Your task to perform on an android device: Open Reddit.com Image 0: 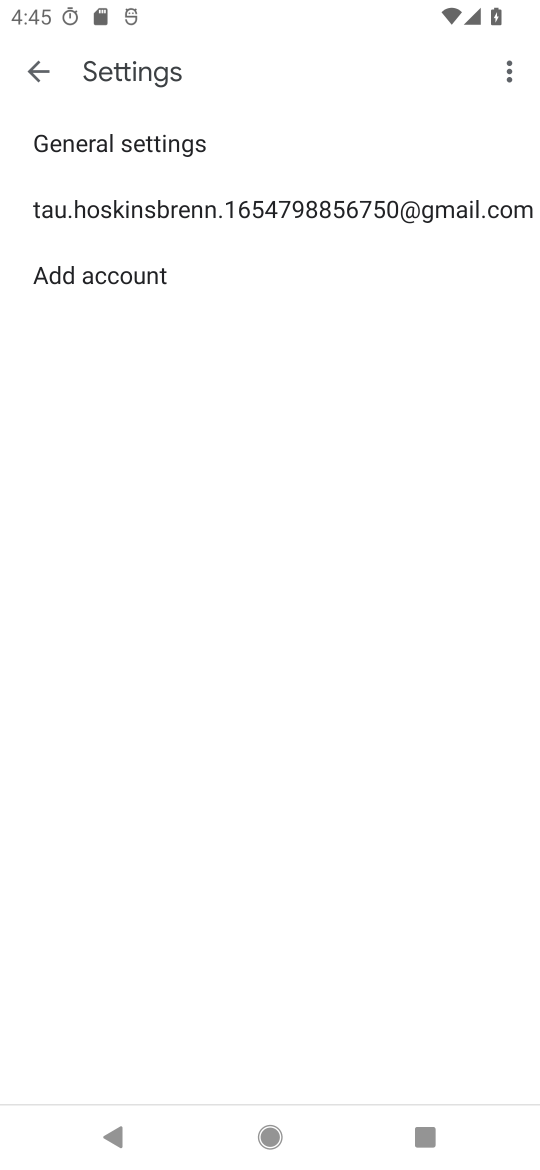
Step 0: press home button
Your task to perform on an android device: Open Reddit.com Image 1: 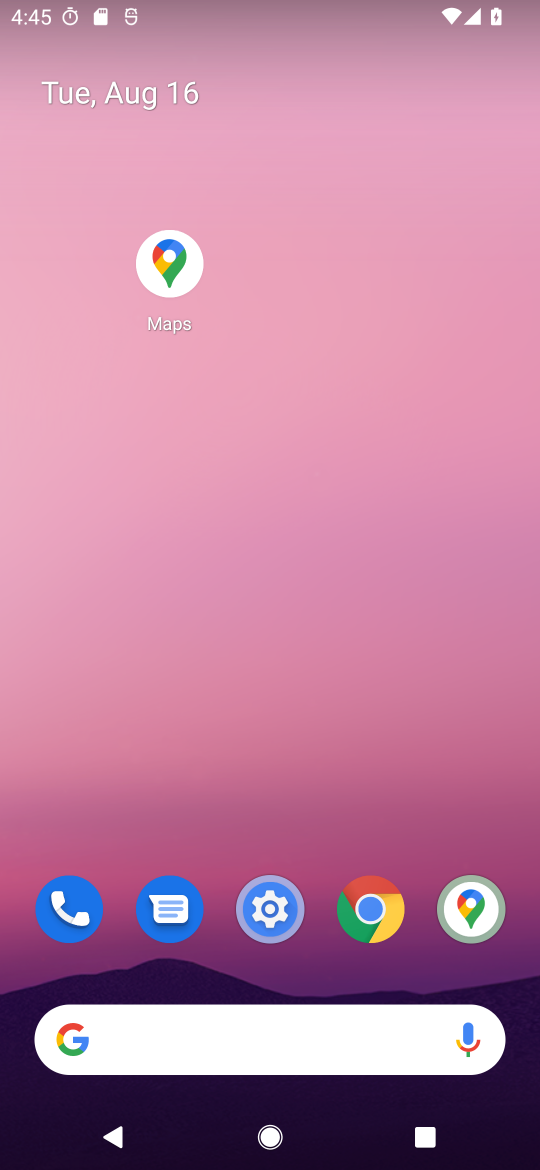
Step 1: click (376, 911)
Your task to perform on an android device: Open Reddit.com Image 2: 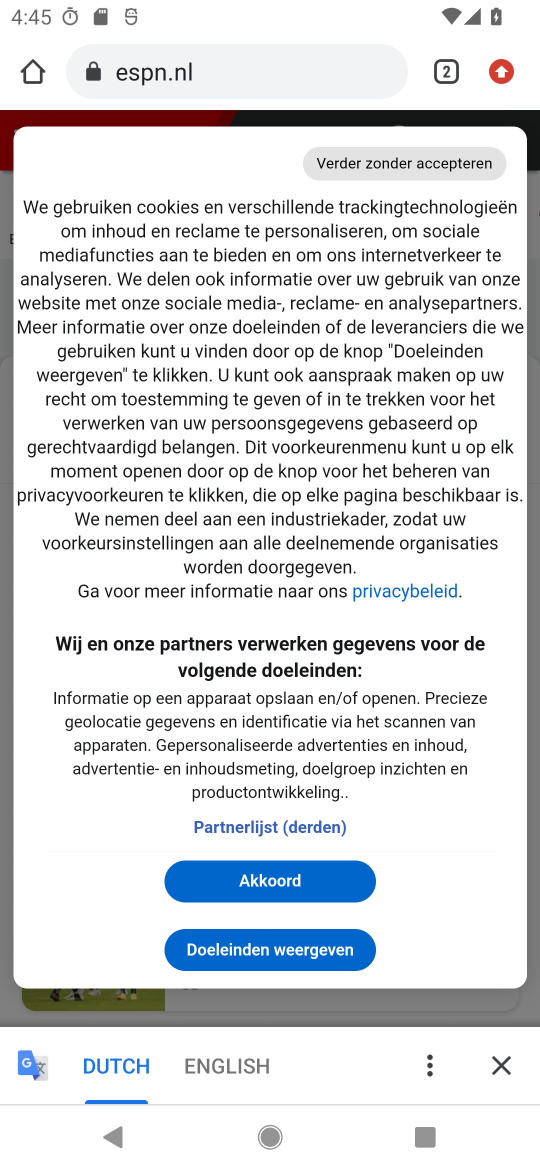
Step 2: click (134, 67)
Your task to perform on an android device: Open Reddit.com Image 3: 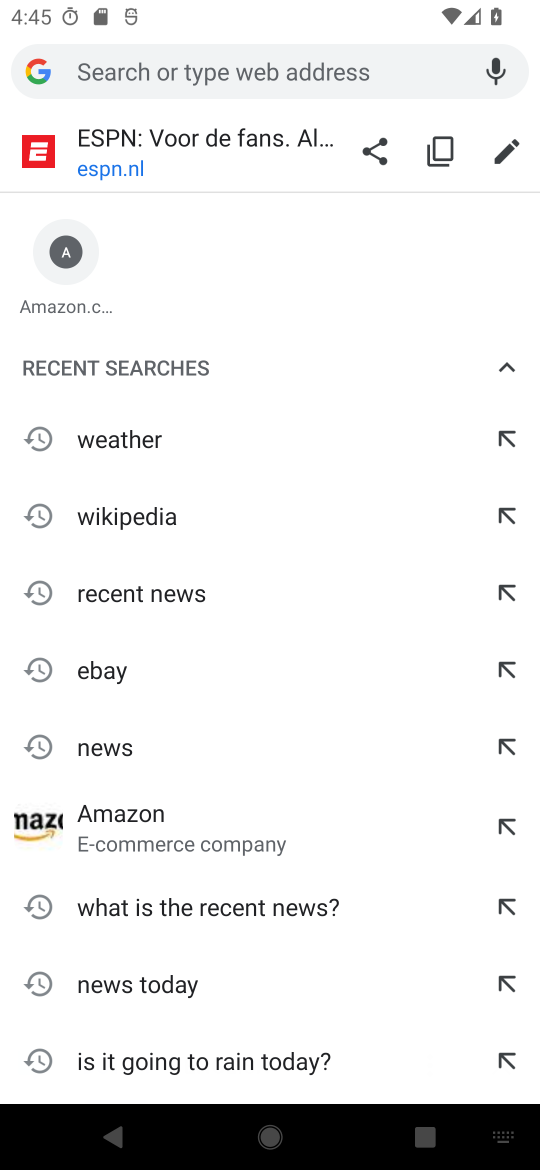
Step 3: type "www.reddit.com"
Your task to perform on an android device: Open Reddit.com Image 4: 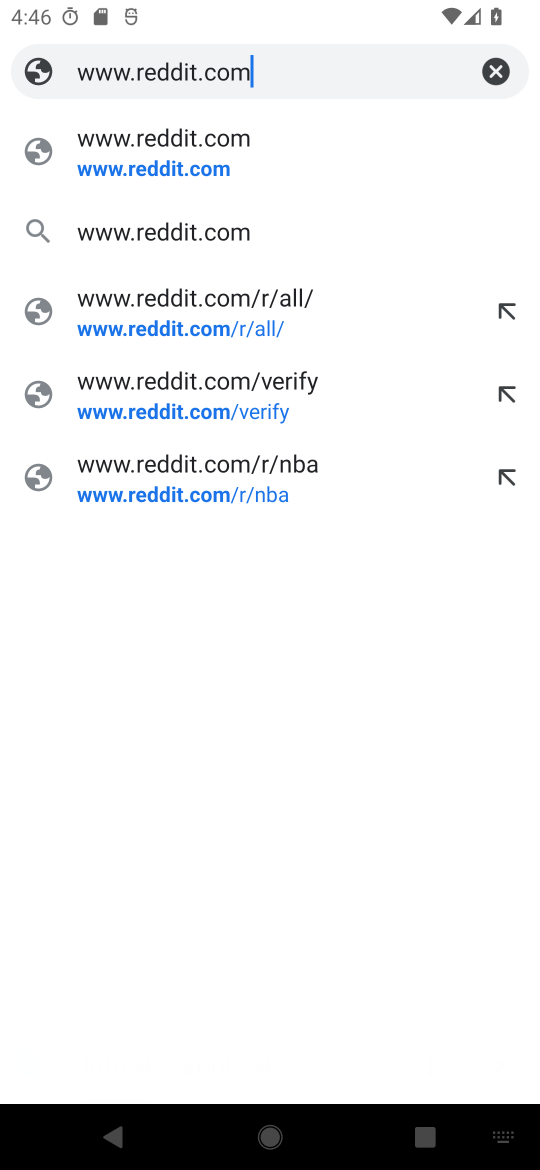
Step 4: click (178, 170)
Your task to perform on an android device: Open Reddit.com Image 5: 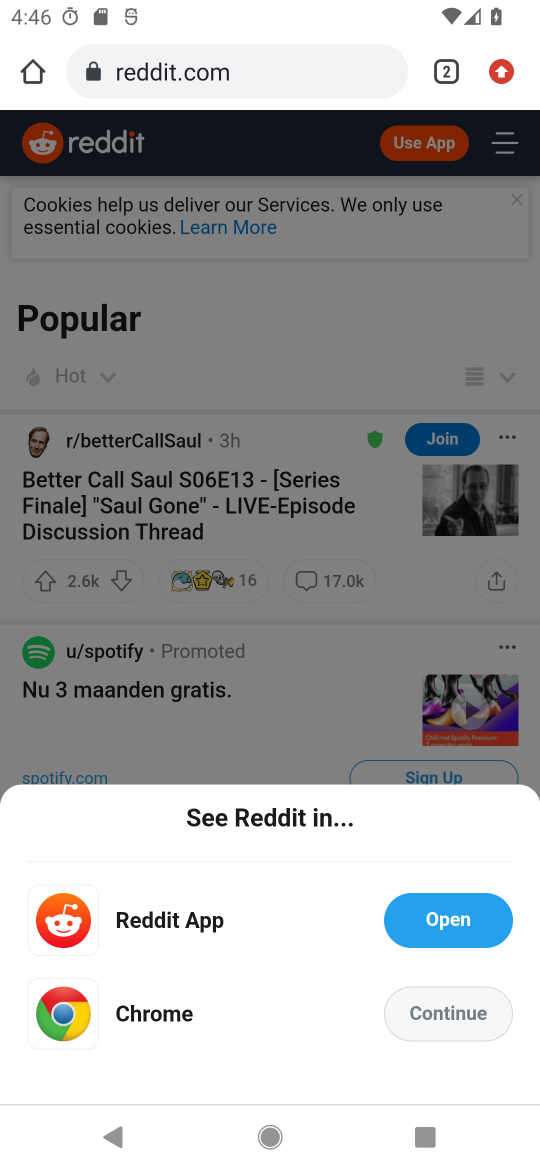
Step 5: task complete